Your task to perform on an android device: Go to privacy settings Image 0: 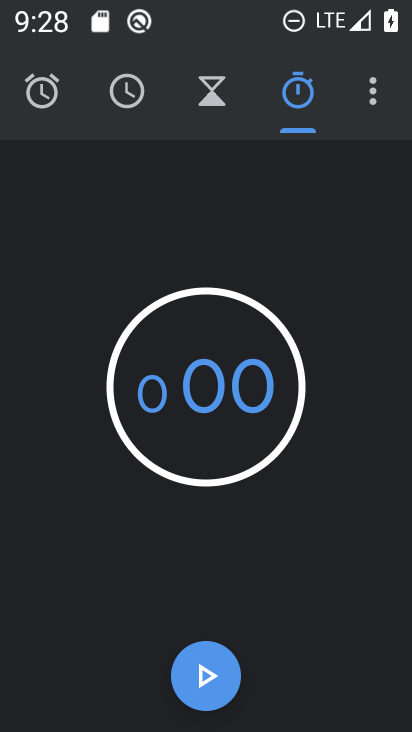
Step 0: press home button
Your task to perform on an android device: Go to privacy settings Image 1: 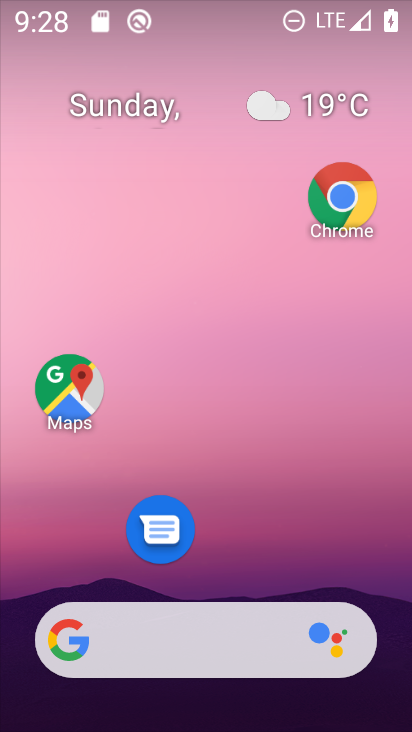
Step 1: drag from (226, 581) to (253, 46)
Your task to perform on an android device: Go to privacy settings Image 2: 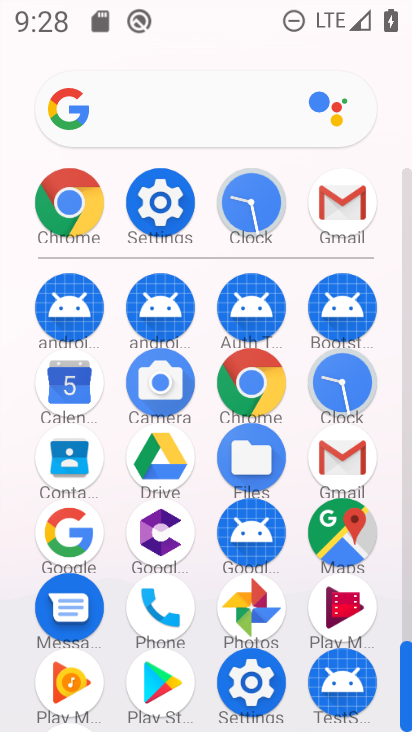
Step 2: click (158, 195)
Your task to perform on an android device: Go to privacy settings Image 3: 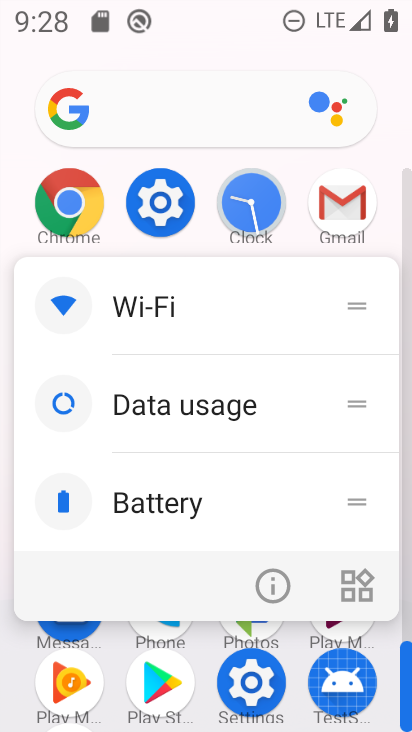
Step 3: click (158, 195)
Your task to perform on an android device: Go to privacy settings Image 4: 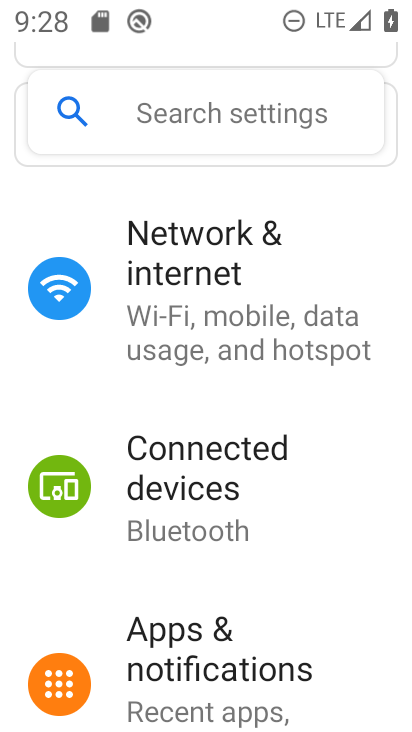
Step 4: drag from (267, 648) to (264, 98)
Your task to perform on an android device: Go to privacy settings Image 5: 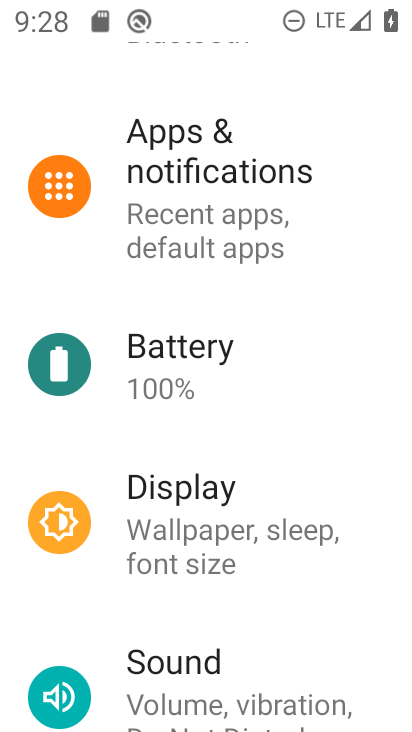
Step 5: drag from (262, 658) to (256, 207)
Your task to perform on an android device: Go to privacy settings Image 6: 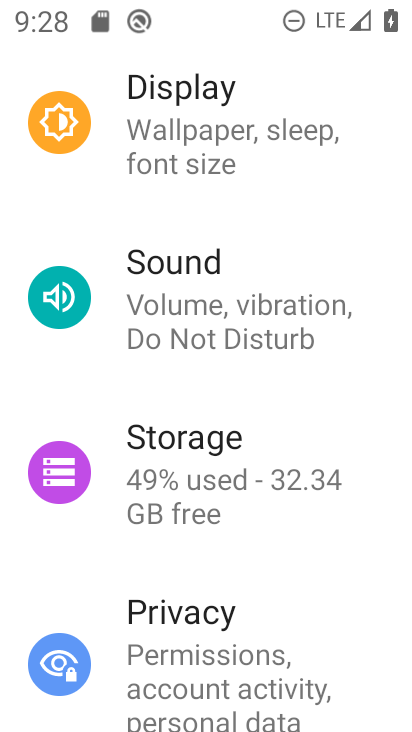
Step 6: click (257, 652)
Your task to perform on an android device: Go to privacy settings Image 7: 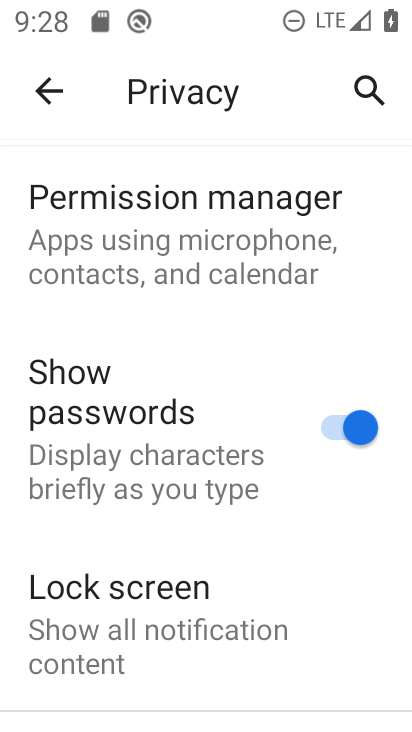
Step 7: drag from (237, 650) to (260, 186)
Your task to perform on an android device: Go to privacy settings Image 8: 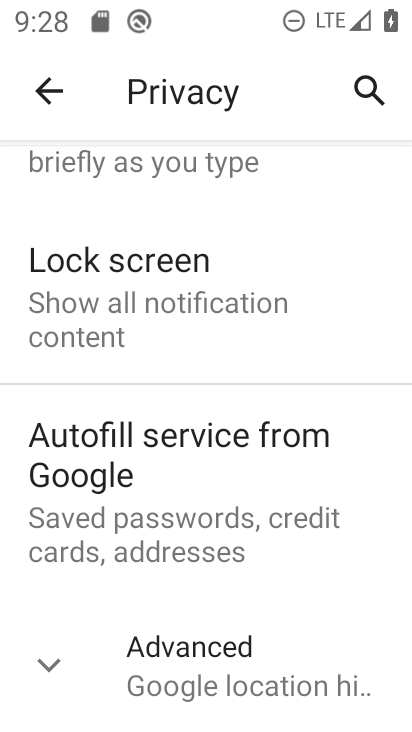
Step 8: click (45, 661)
Your task to perform on an android device: Go to privacy settings Image 9: 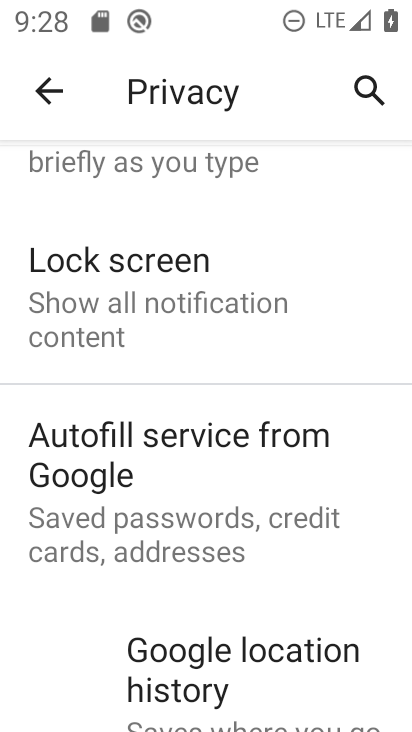
Step 9: task complete